Your task to perform on an android device: empty trash in the gmail app Image 0: 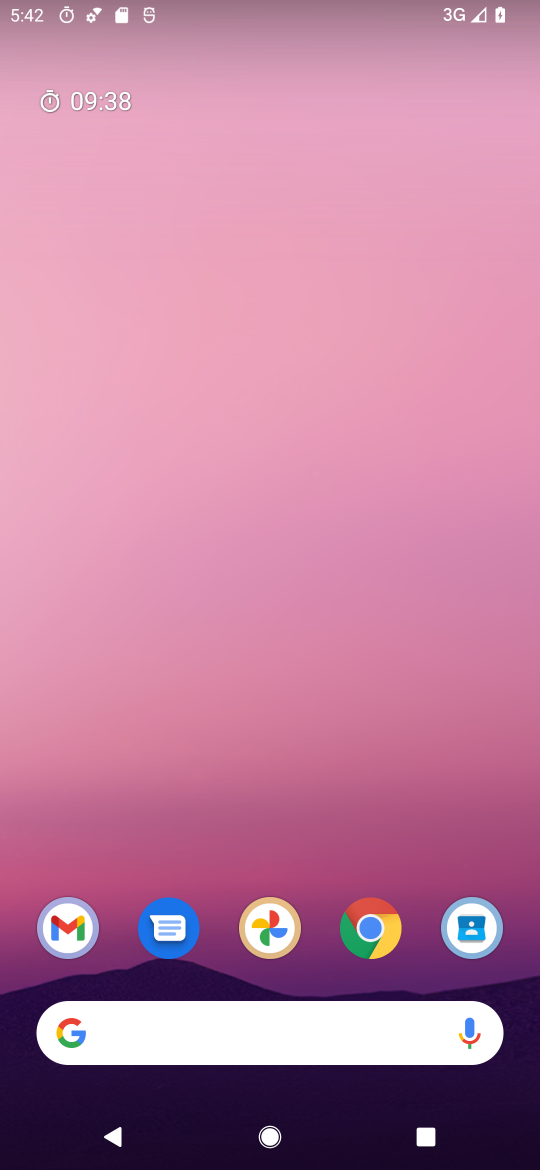
Step 0: click (71, 956)
Your task to perform on an android device: empty trash in the gmail app Image 1: 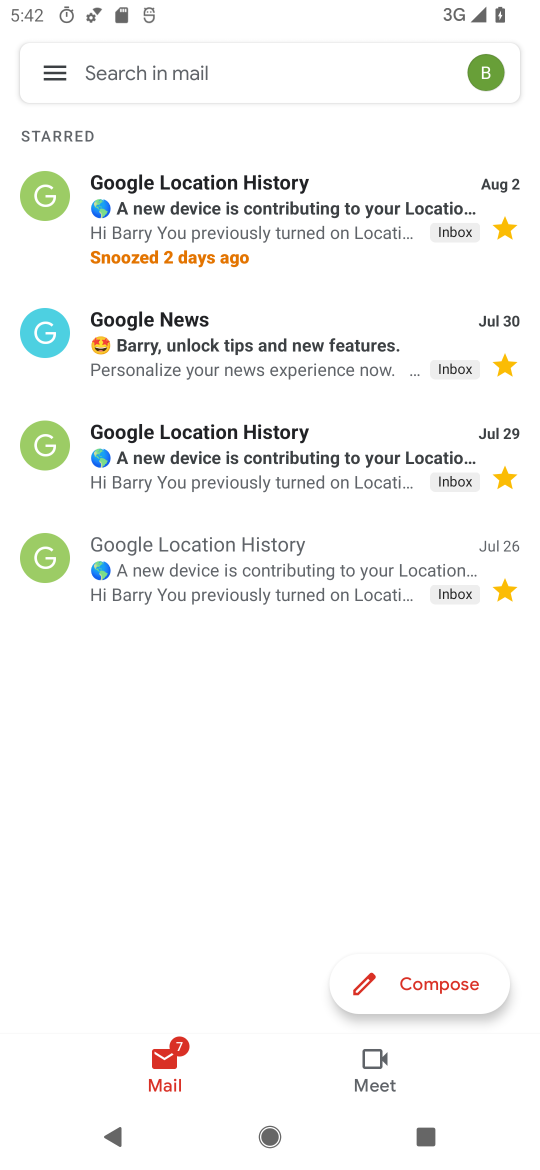
Step 1: click (55, 64)
Your task to perform on an android device: empty trash in the gmail app Image 2: 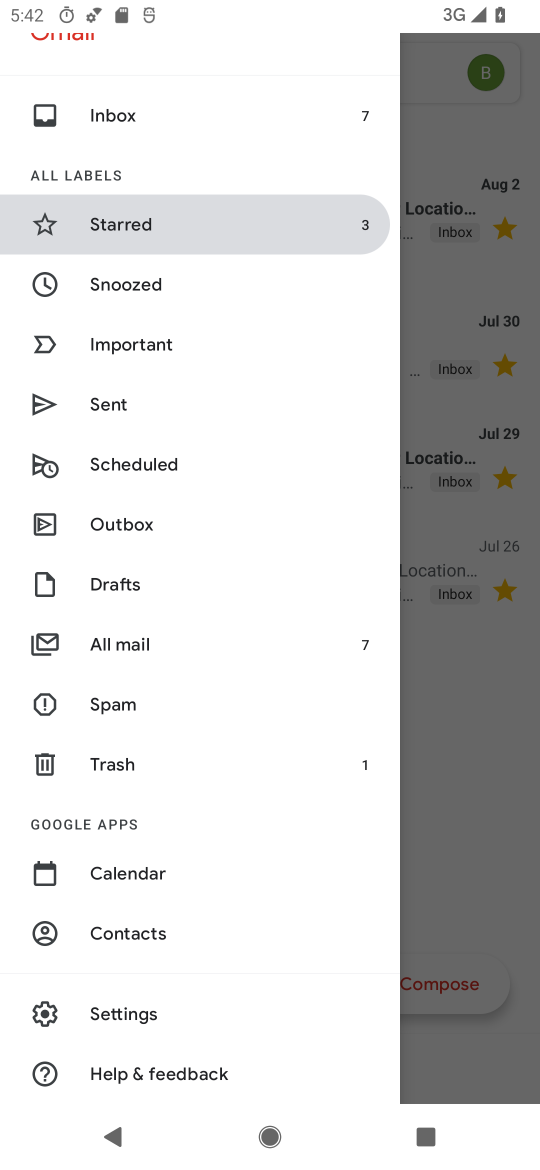
Step 2: click (126, 757)
Your task to perform on an android device: empty trash in the gmail app Image 3: 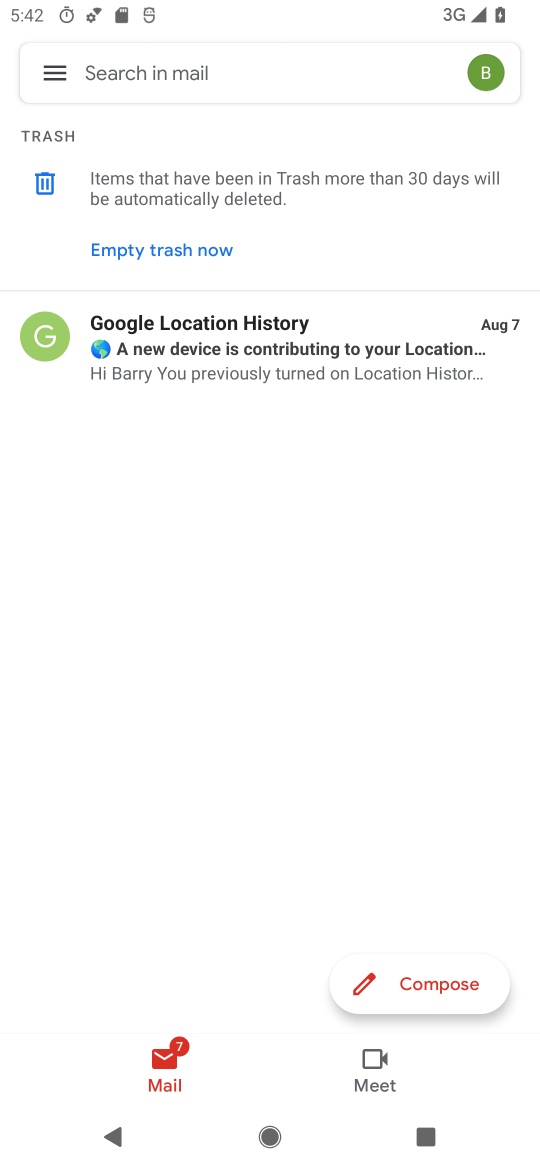
Step 3: click (154, 255)
Your task to perform on an android device: empty trash in the gmail app Image 4: 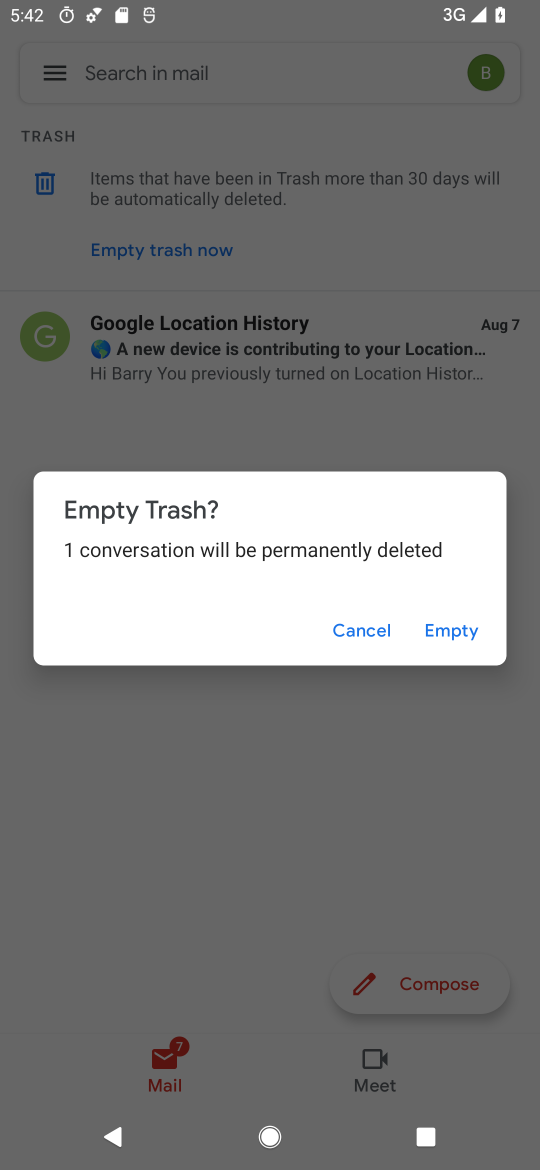
Step 4: click (464, 625)
Your task to perform on an android device: empty trash in the gmail app Image 5: 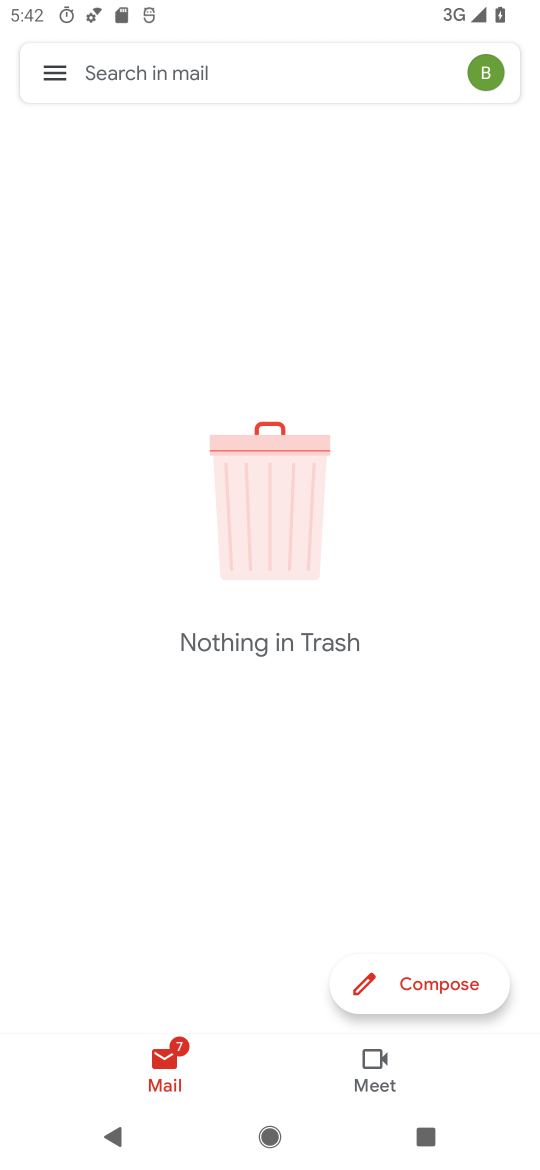
Step 5: task complete